Your task to perform on an android device: turn on the 24-hour format for clock Image 0: 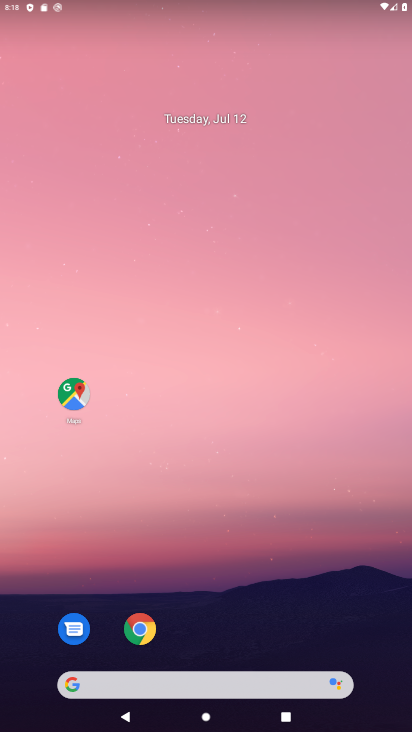
Step 0: drag from (225, 722) to (267, 192)
Your task to perform on an android device: turn on the 24-hour format for clock Image 1: 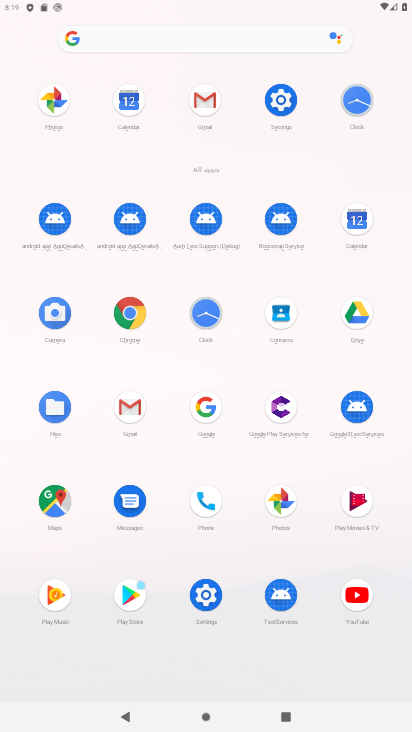
Step 1: click (356, 88)
Your task to perform on an android device: turn on the 24-hour format for clock Image 2: 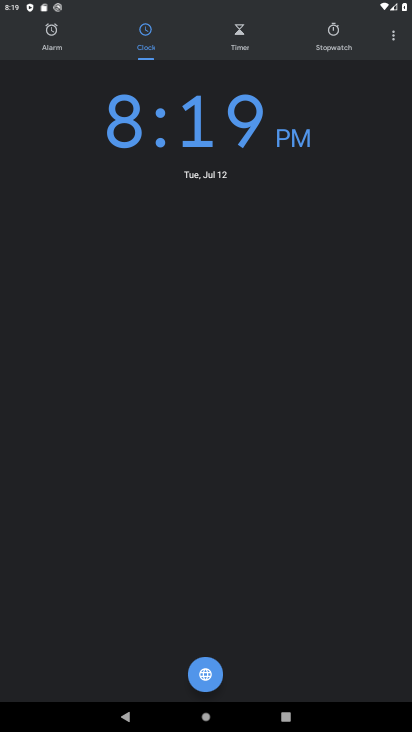
Step 2: click (398, 36)
Your task to perform on an android device: turn on the 24-hour format for clock Image 3: 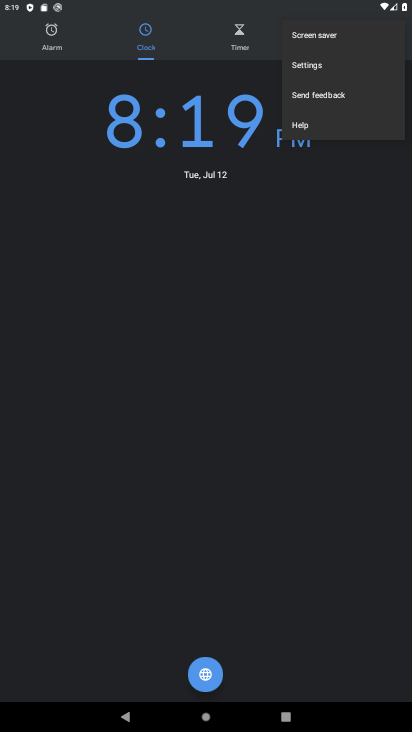
Step 3: click (317, 71)
Your task to perform on an android device: turn on the 24-hour format for clock Image 4: 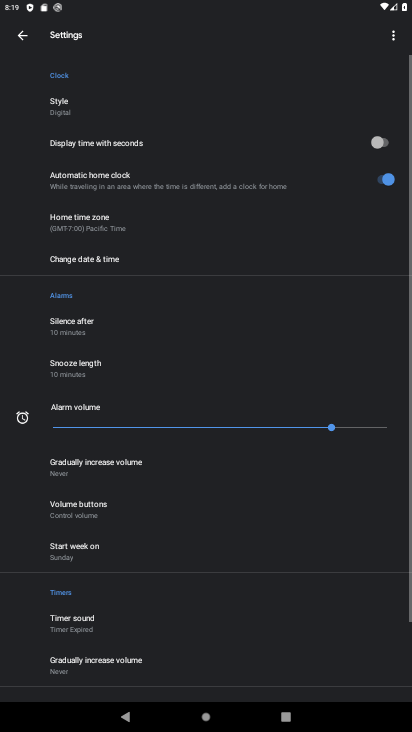
Step 4: click (165, 255)
Your task to perform on an android device: turn on the 24-hour format for clock Image 5: 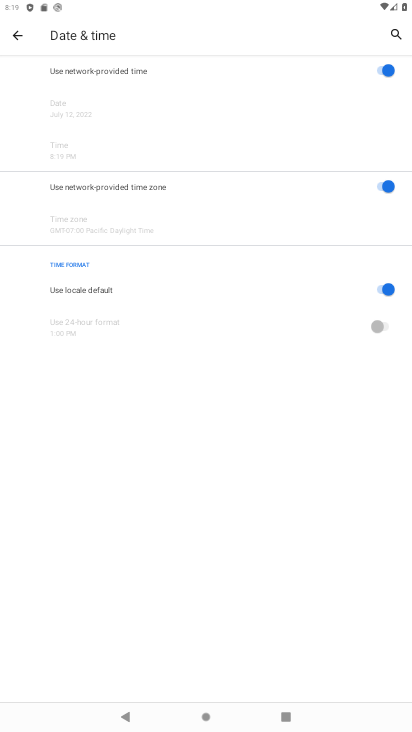
Step 5: click (383, 284)
Your task to perform on an android device: turn on the 24-hour format for clock Image 6: 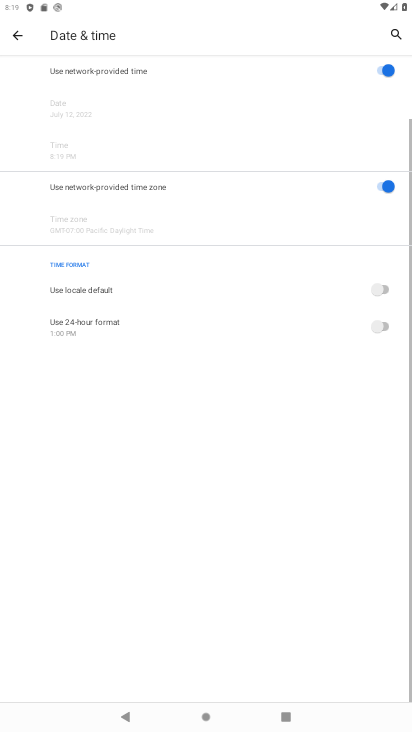
Step 6: click (380, 326)
Your task to perform on an android device: turn on the 24-hour format for clock Image 7: 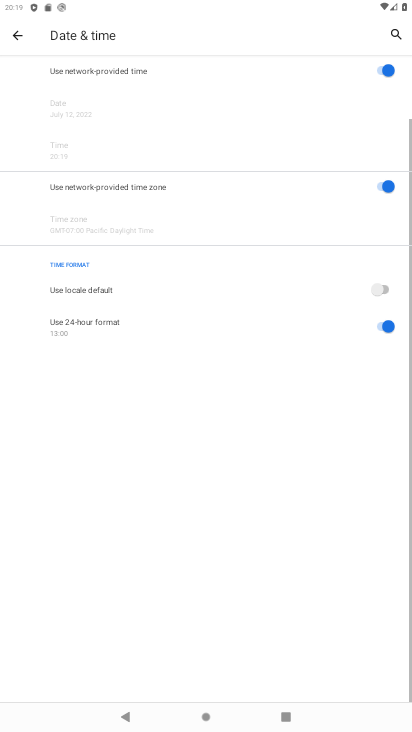
Step 7: task complete